Your task to perform on an android device: Go to settings Image 0: 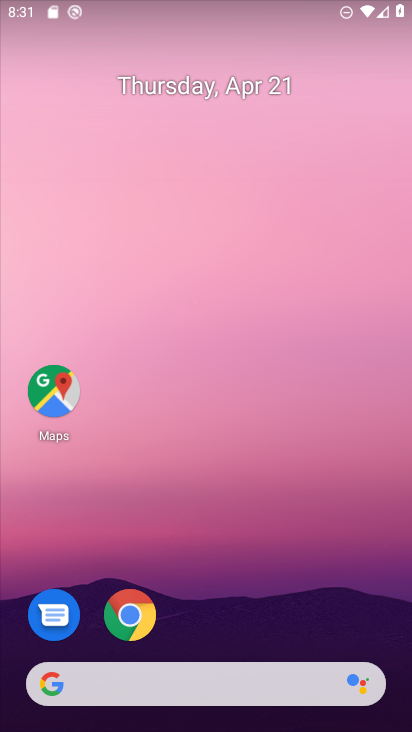
Step 0: drag from (335, 483) to (338, 79)
Your task to perform on an android device: Go to settings Image 1: 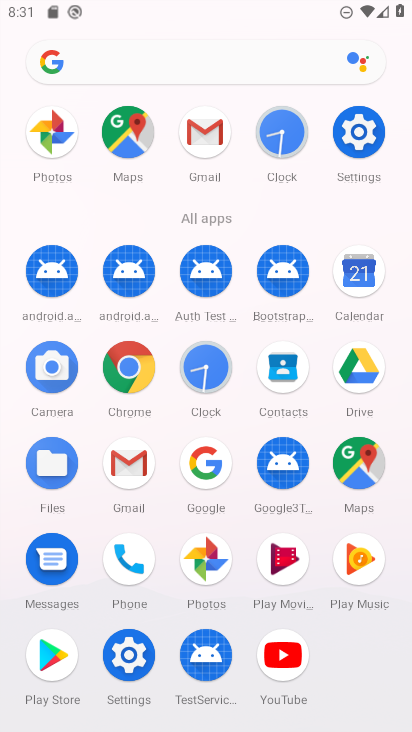
Step 1: click (362, 139)
Your task to perform on an android device: Go to settings Image 2: 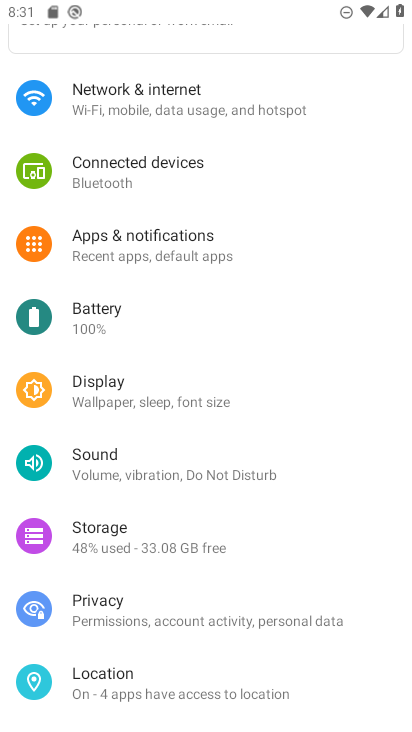
Step 2: task complete